Your task to perform on an android device: Do I have any events this weekend? Image 0: 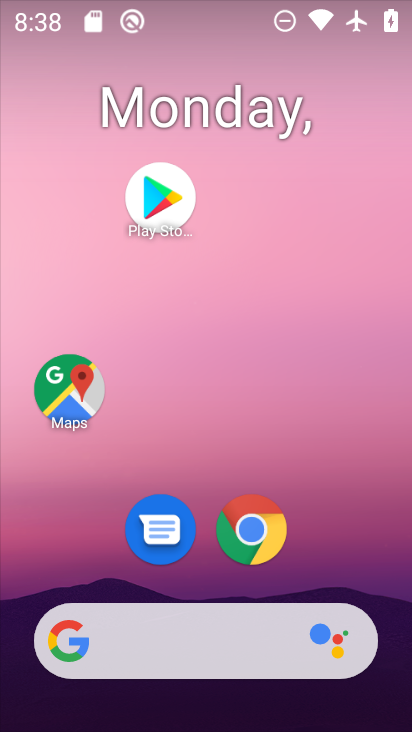
Step 0: drag from (334, 459) to (236, 17)
Your task to perform on an android device: Do I have any events this weekend? Image 1: 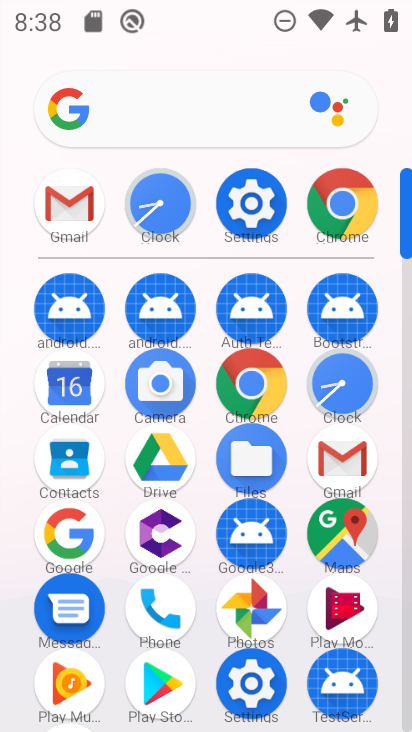
Step 1: click (67, 380)
Your task to perform on an android device: Do I have any events this weekend? Image 2: 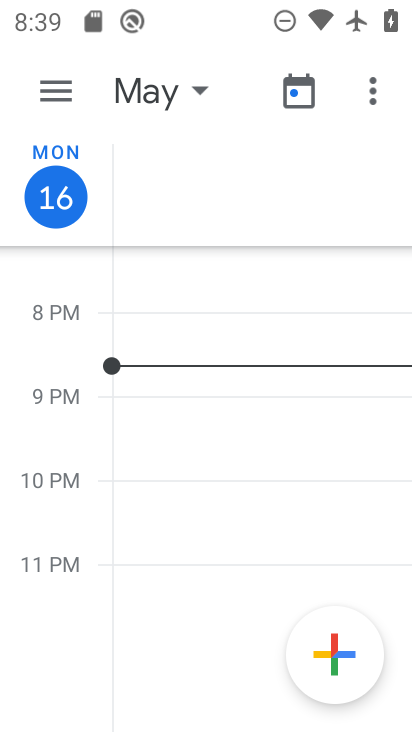
Step 2: click (53, 93)
Your task to perform on an android device: Do I have any events this weekend? Image 3: 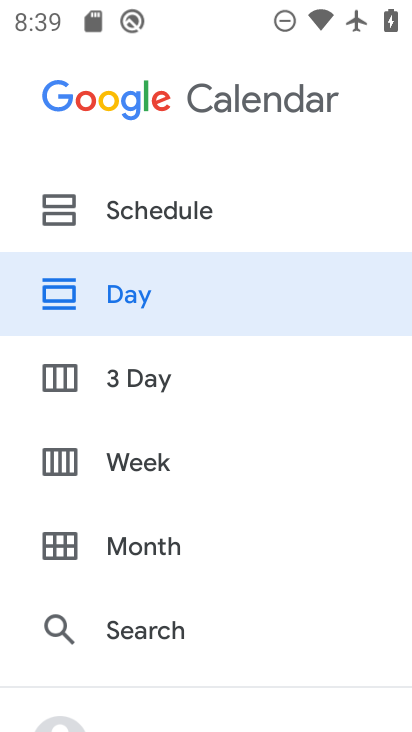
Step 3: click (62, 91)
Your task to perform on an android device: Do I have any events this weekend? Image 4: 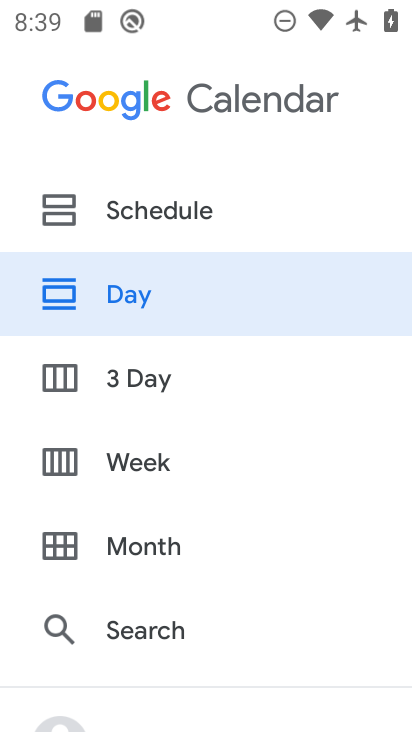
Step 4: click (126, 453)
Your task to perform on an android device: Do I have any events this weekend? Image 5: 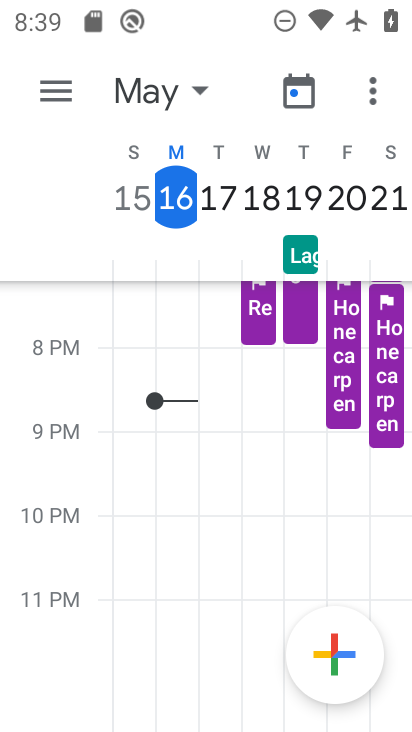
Step 5: task complete